Your task to perform on an android device: What's the weather today? Image 0: 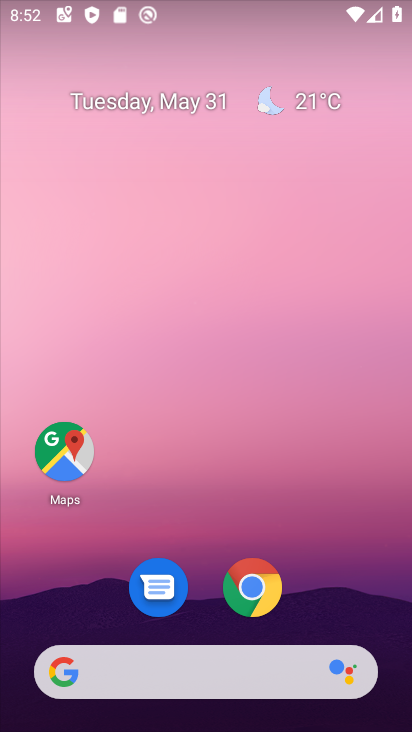
Step 0: click (338, 94)
Your task to perform on an android device: What's the weather today? Image 1: 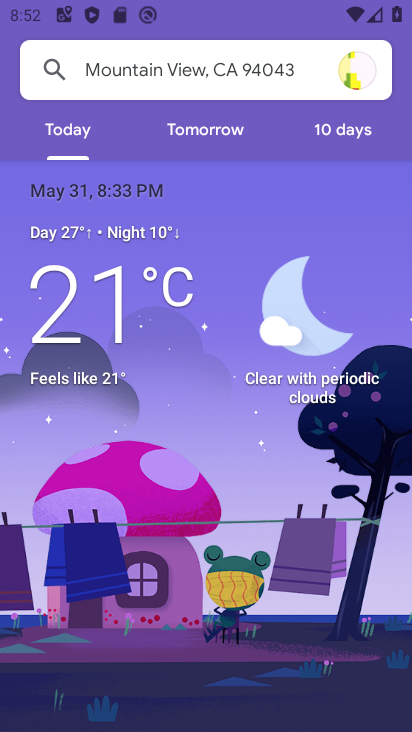
Step 1: task complete